Your task to perform on an android device: empty trash in the gmail app Image 0: 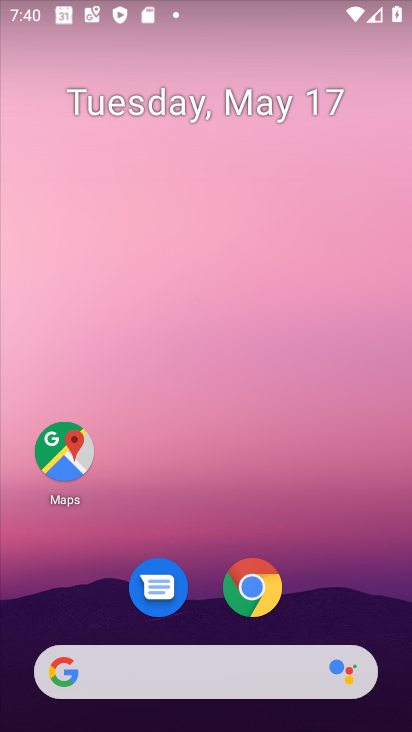
Step 0: drag from (197, 646) to (181, 282)
Your task to perform on an android device: empty trash in the gmail app Image 1: 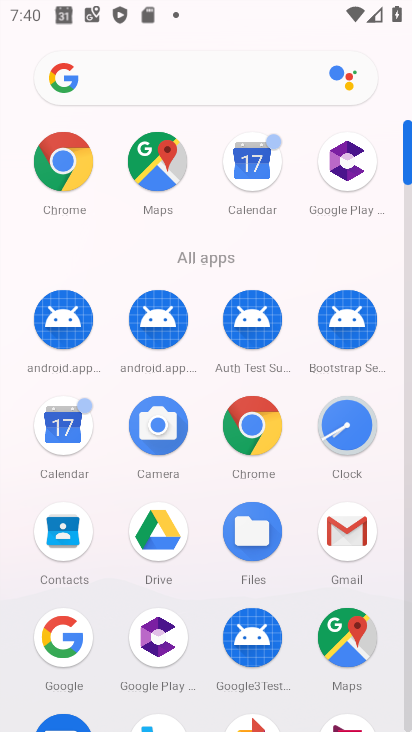
Step 1: click (355, 535)
Your task to perform on an android device: empty trash in the gmail app Image 2: 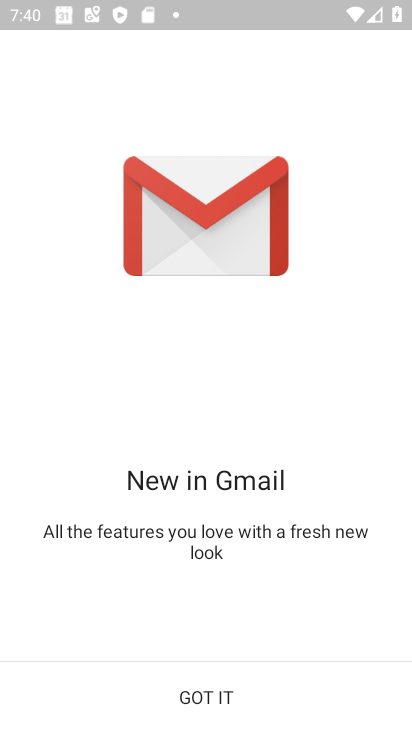
Step 2: click (203, 695)
Your task to perform on an android device: empty trash in the gmail app Image 3: 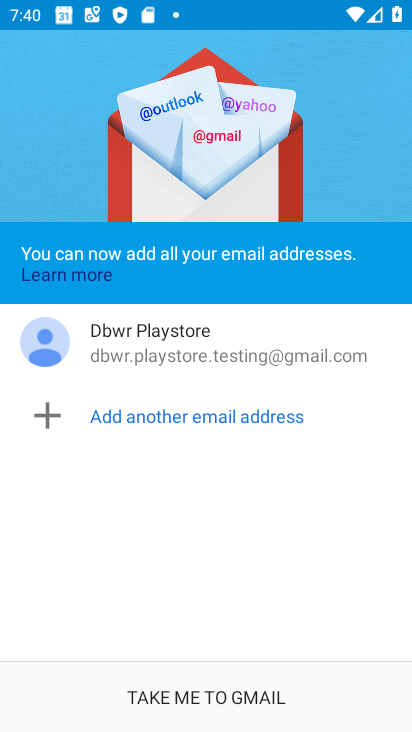
Step 3: click (163, 691)
Your task to perform on an android device: empty trash in the gmail app Image 4: 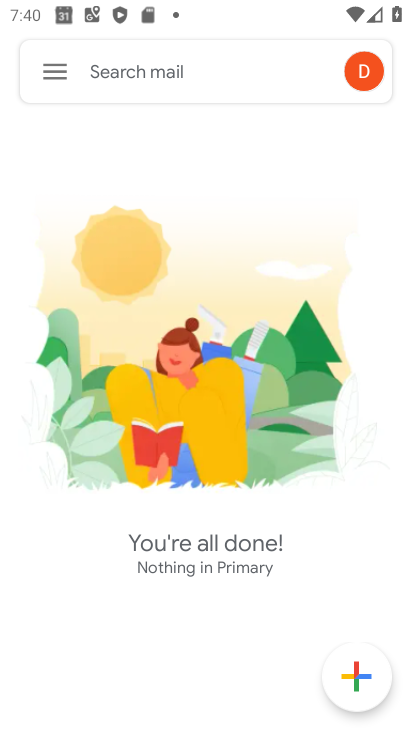
Step 4: click (49, 73)
Your task to perform on an android device: empty trash in the gmail app Image 5: 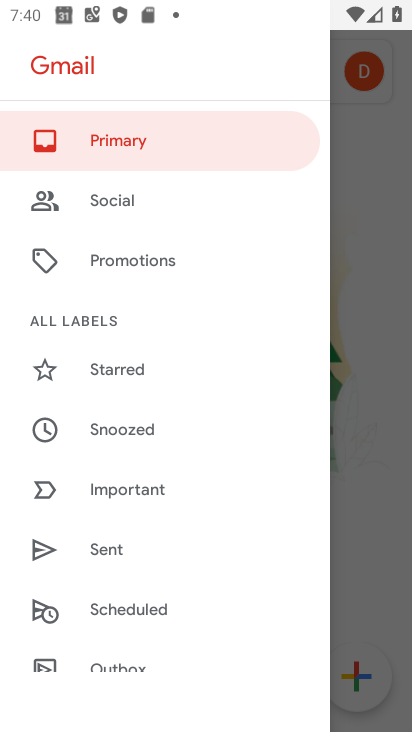
Step 5: click (135, 293)
Your task to perform on an android device: empty trash in the gmail app Image 6: 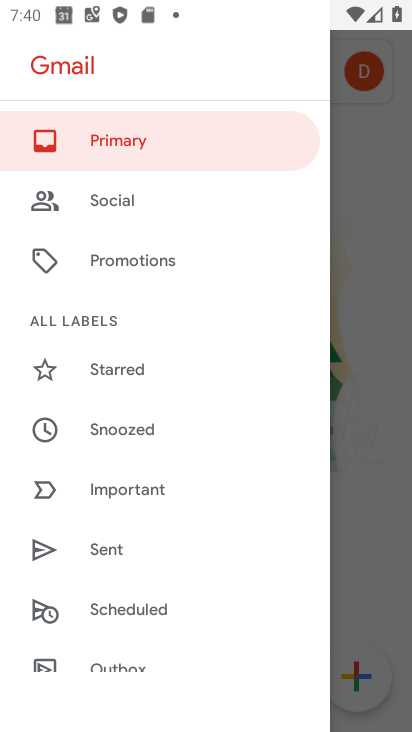
Step 6: drag from (125, 664) to (115, 435)
Your task to perform on an android device: empty trash in the gmail app Image 7: 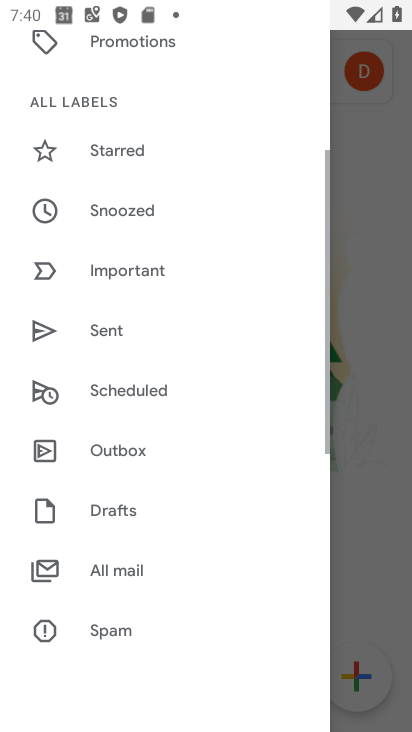
Step 7: drag from (118, 635) to (121, 368)
Your task to perform on an android device: empty trash in the gmail app Image 8: 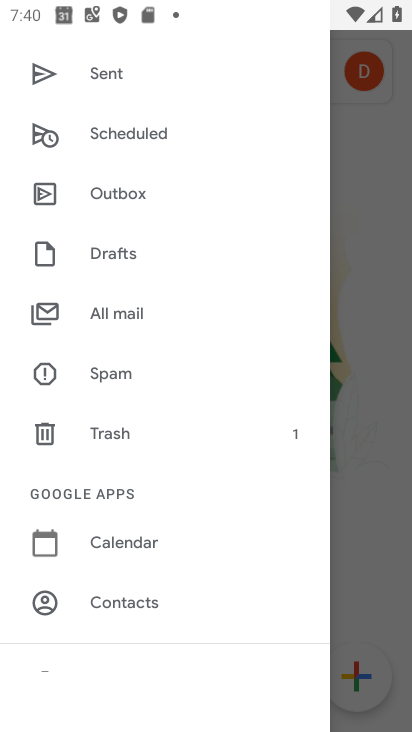
Step 8: click (106, 435)
Your task to perform on an android device: empty trash in the gmail app Image 9: 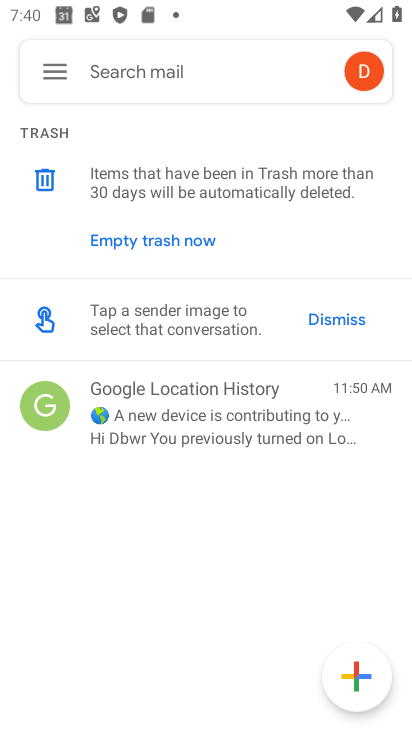
Step 9: task complete